Your task to perform on an android device: Open Chrome and go to settings Image 0: 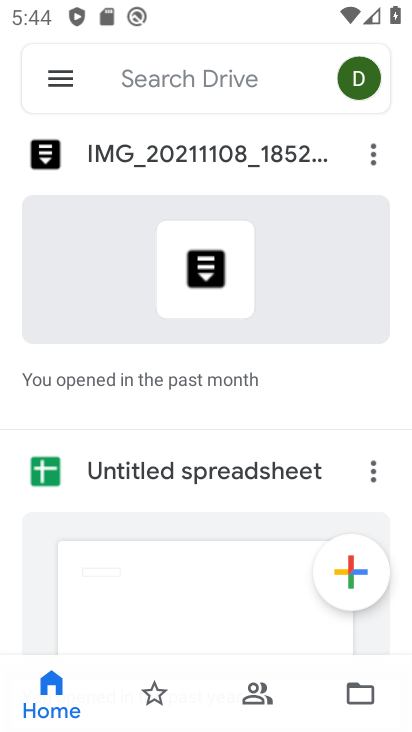
Step 0: press home button
Your task to perform on an android device: Open Chrome and go to settings Image 1: 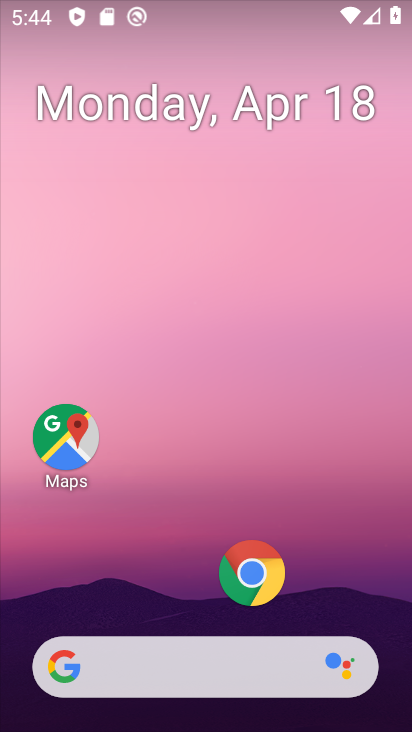
Step 1: click (255, 582)
Your task to perform on an android device: Open Chrome and go to settings Image 2: 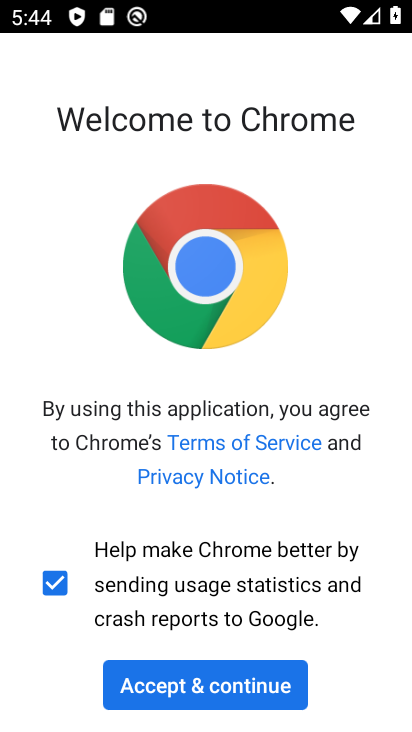
Step 2: click (195, 681)
Your task to perform on an android device: Open Chrome and go to settings Image 3: 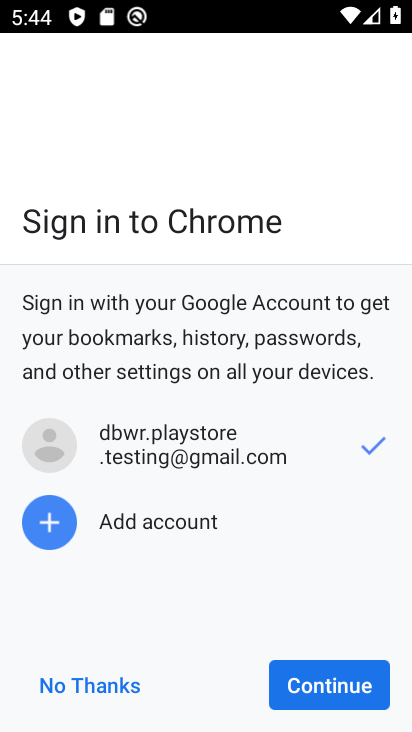
Step 3: click (330, 681)
Your task to perform on an android device: Open Chrome and go to settings Image 4: 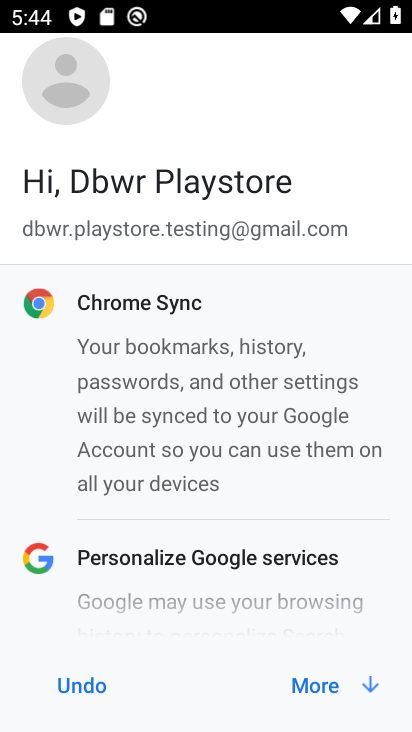
Step 4: click (326, 685)
Your task to perform on an android device: Open Chrome and go to settings Image 5: 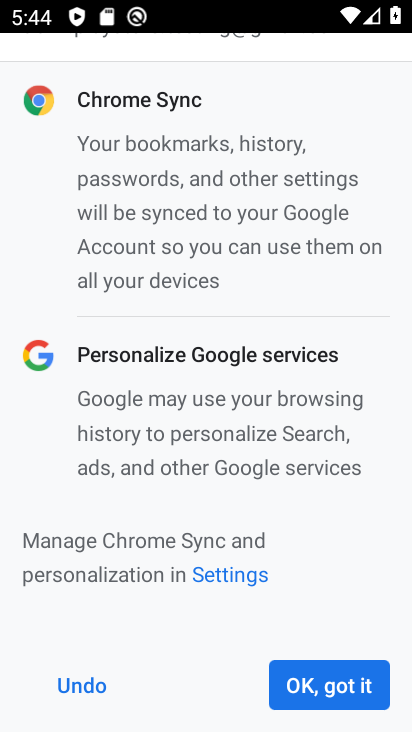
Step 5: click (326, 685)
Your task to perform on an android device: Open Chrome and go to settings Image 6: 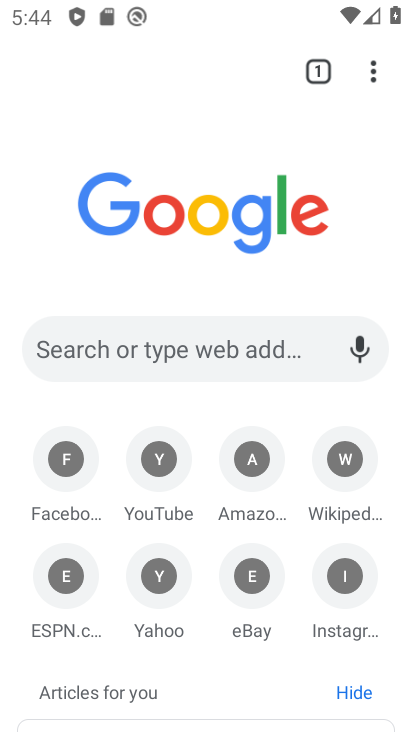
Step 6: click (373, 76)
Your task to perform on an android device: Open Chrome and go to settings Image 7: 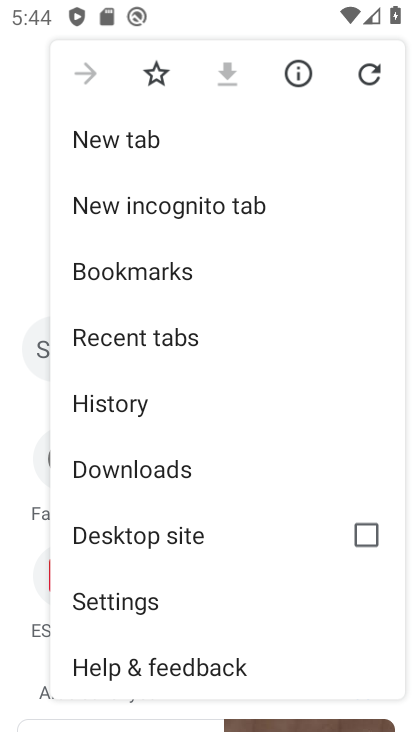
Step 7: click (125, 598)
Your task to perform on an android device: Open Chrome and go to settings Image 8: 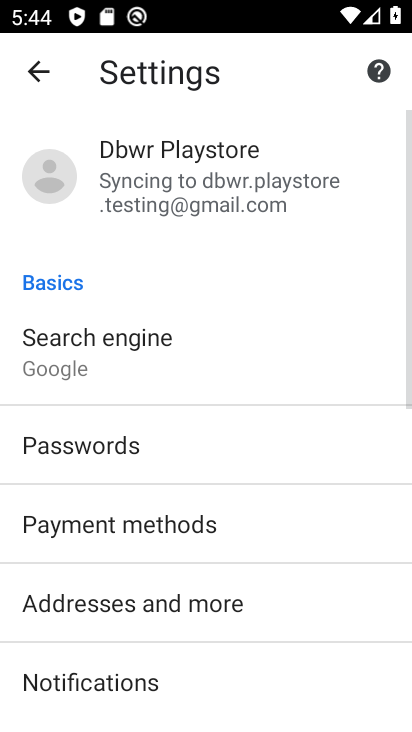
Step 8: task complete